Your task to perform on an android device: What's the weather? Image 0: 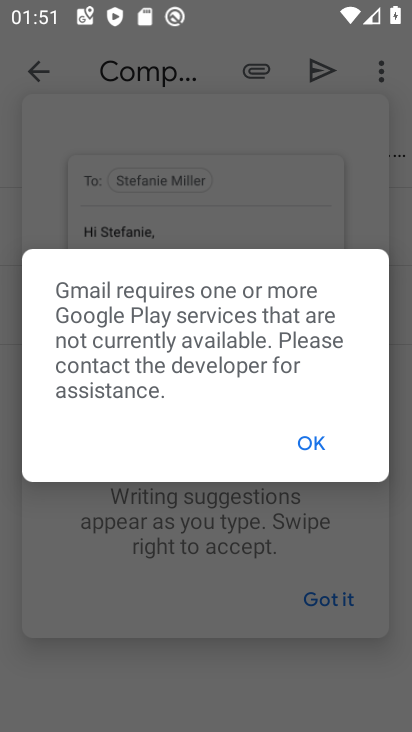
Step 0: press home button
Your task to perform on an android device: What's the weather? Image 1: 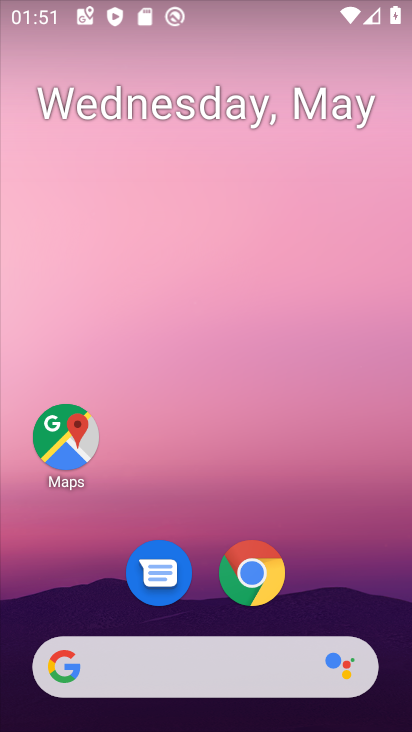
Step 1: click (241, 559)
Your task to perform on an android device: What's the weather? Image 2: 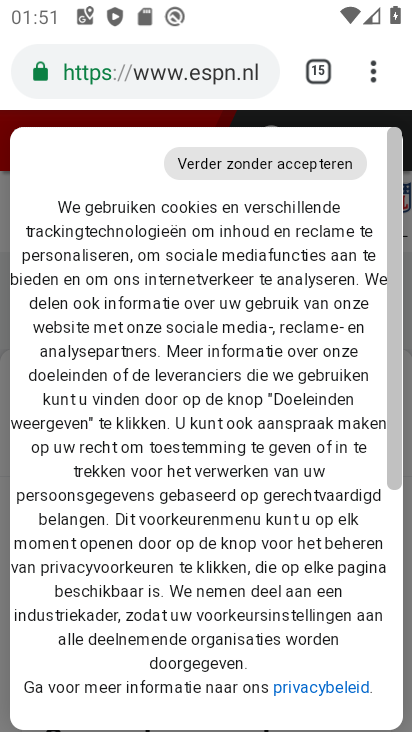
Step 2: click (392, 78)
Your task to perform on an android device: What's the weather? Image 3: 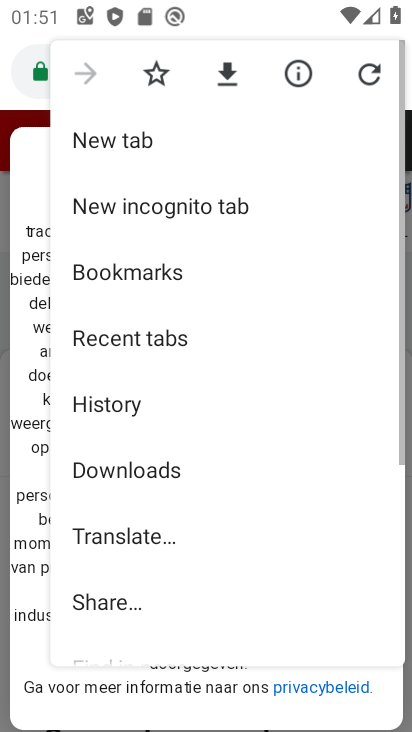
Step 3: click (142, 118)
Your task to perform on an android device: What's the weather? Image 4: 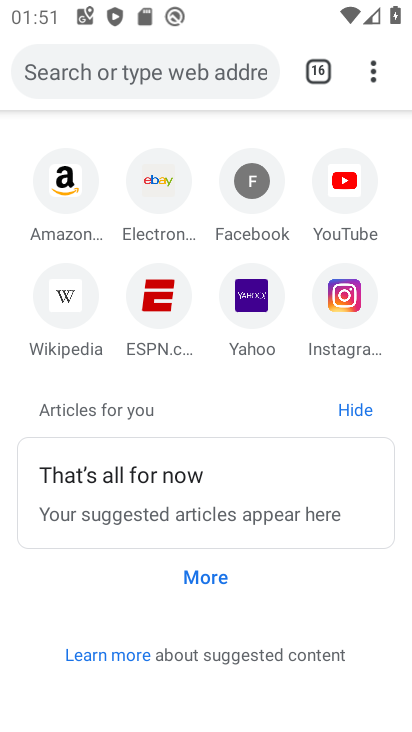
Step 4: click (170, 70)
Your task to perform on an android device: What's the weather? Image 5: 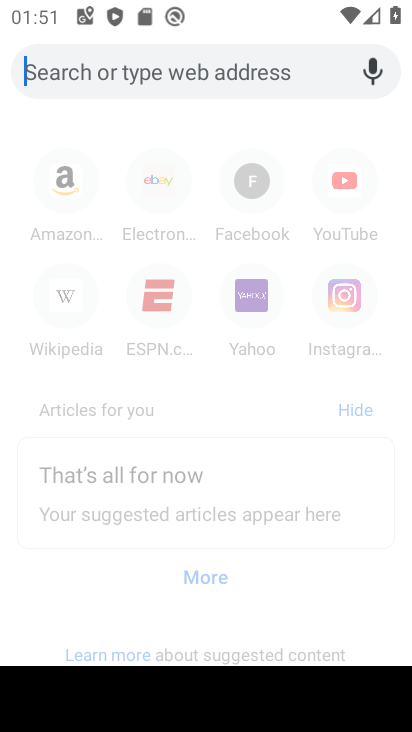
Step 5: type "What's the weather?"
Your task to perform on an android device: What's the weather? Image 6: 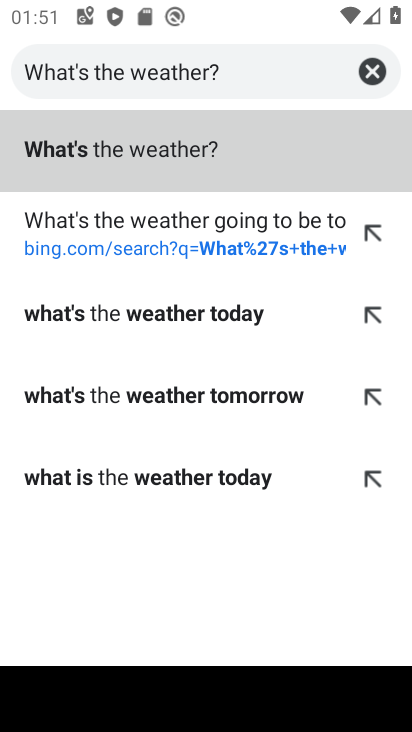
Step 6: click (186, 151)
Your task to perform on an android device: What's the weather? Image 7: 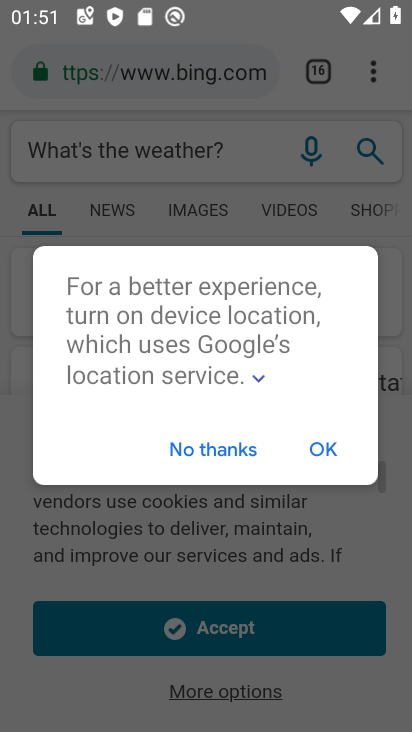
Step 7: task complete